Your task to perform on an android device: toggle pop-ups in chrome Image 0: 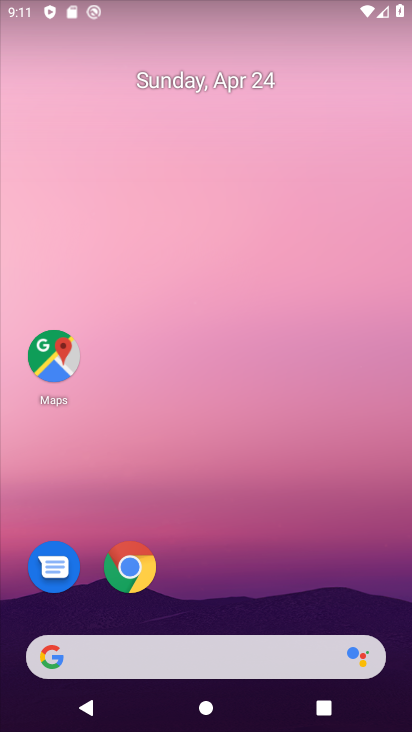
Step 0: click (140, 566)
Your task to perform on an android device: toggle pop-ups in chrome Image 1: 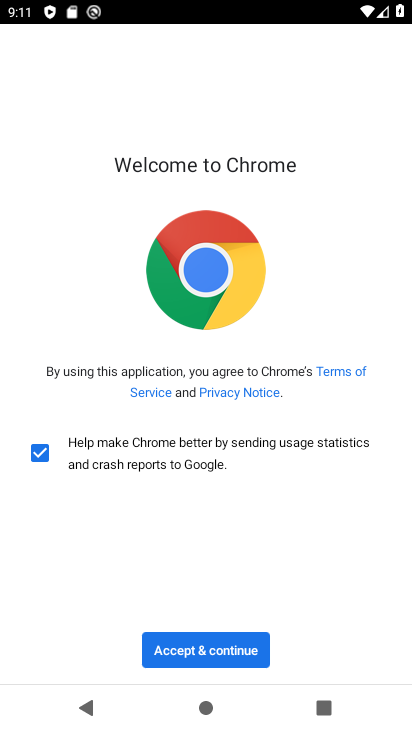
Step 1: click (177, 646)
Your task to perform on an android device: toggle pop-ups in chrome Image 2: 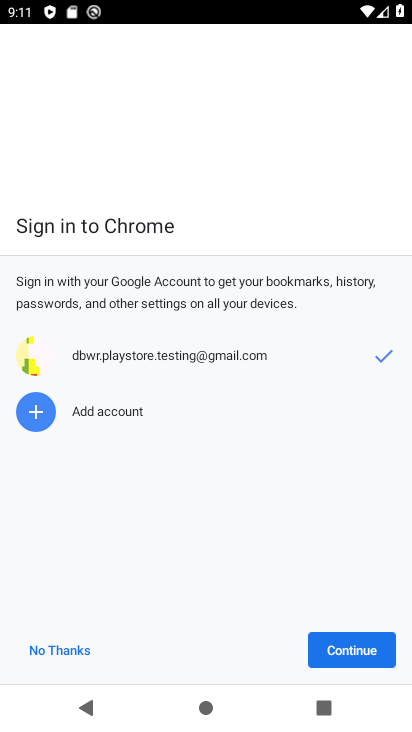
Step 2: click (365, 632)
Your task to perform on an android device: toggle pop-ups in chrome Image 3: 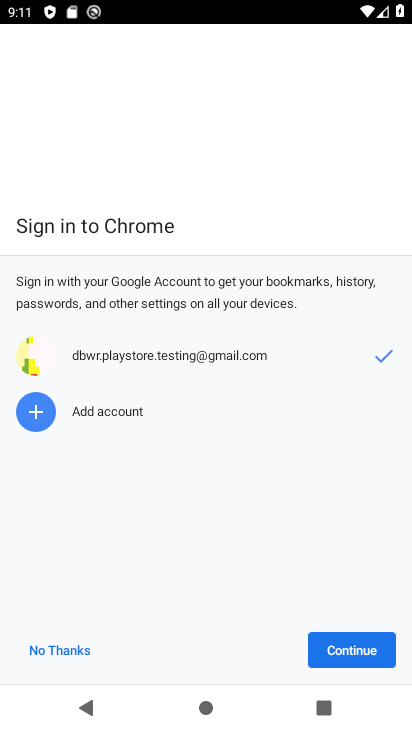
Step 3: click (361, 638)
Your task to perform on an android device: toggle pop-ups in chrome Image 4: 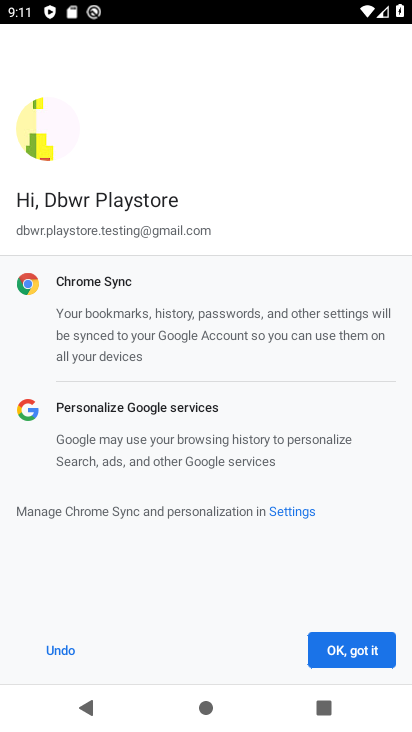
Step 4: click (342, 644)
Your task to perform on an android device: toggle pop-ups in chrome Image 5: 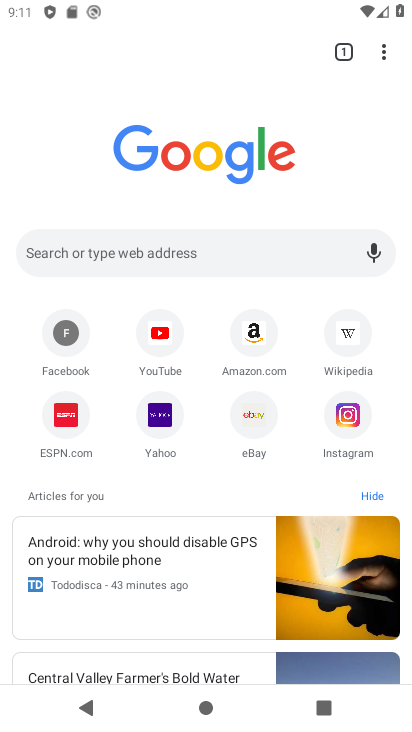
Step 5: click (383, 49)
Your task to perform on an android device: toggle pop-ups in chrome Image 6: 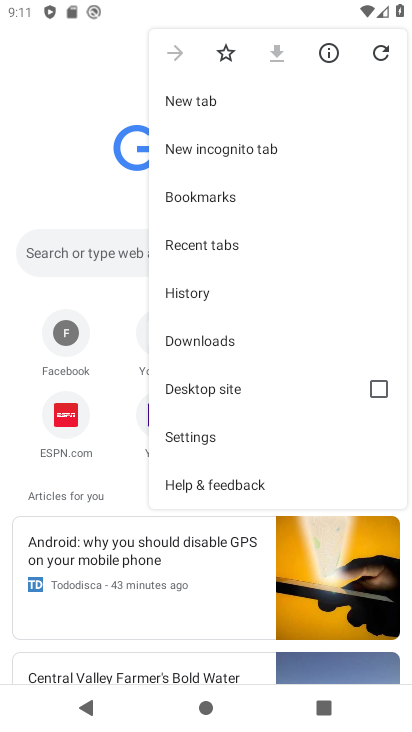
Step 6: click (208, 434)
Your task to perform on an android device: toggle pop-ups in chrome Image 7: 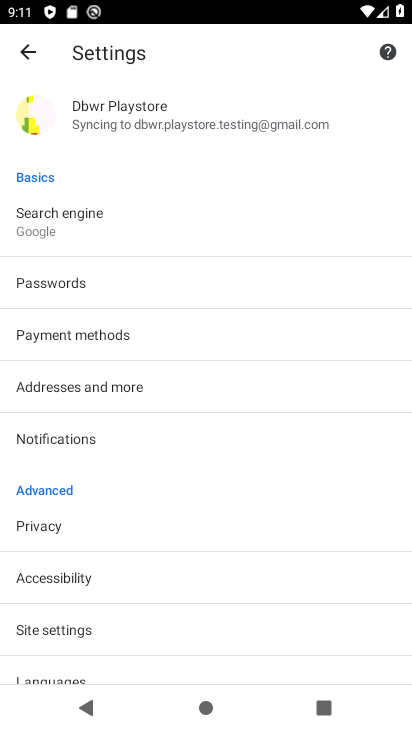
Step 7: click (127, 623)
Your task to perform on an android device: toggle pop-ups in chrome Image 8: 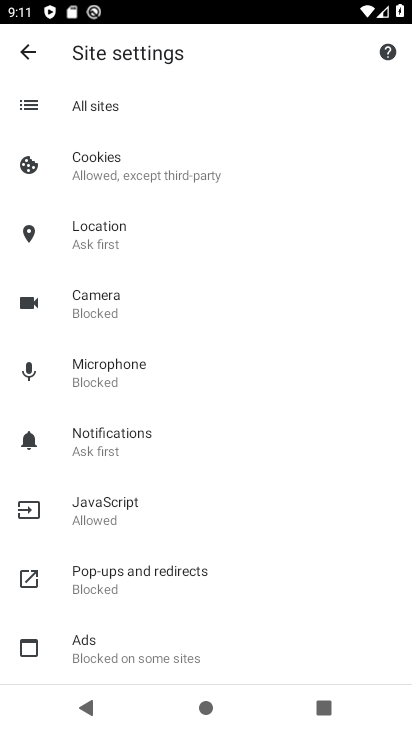
Step 8: click (187, 569)
Your task to perform on an android device: toggle pop-ups in chrome Image 9: 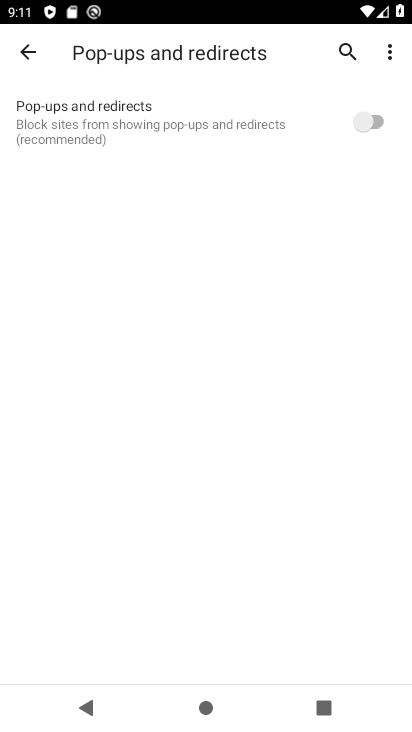
Step 9: click (366, 116)
Your task to perform on an android device: toggle pop-ups in chrome Image 10: 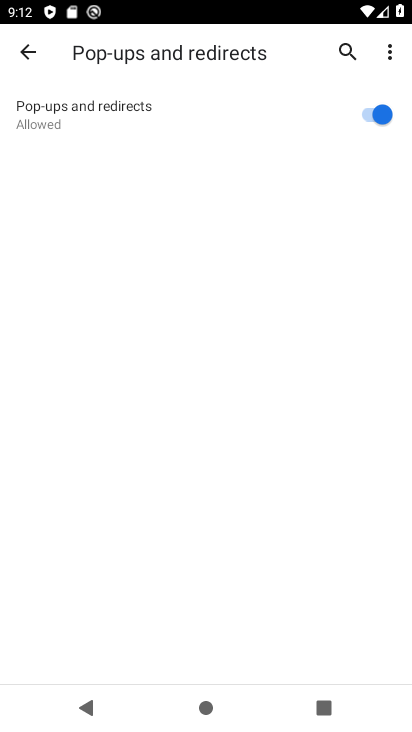
Step 10: task complete